Your task to perform on an android device: Open maps Image 0: 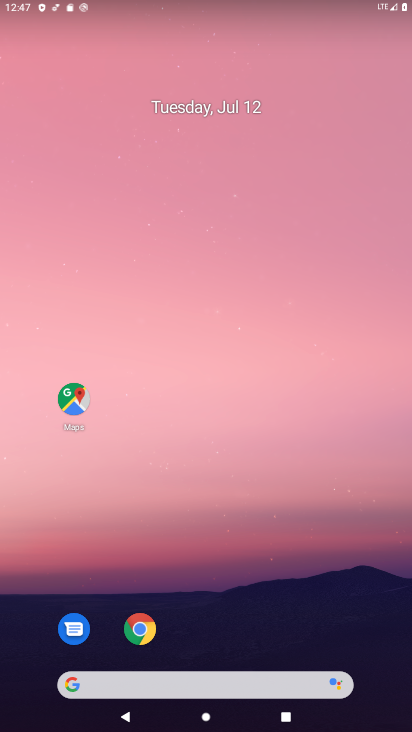
Step 0: click (64, 403)
Your task to perform on an android device: Open maps Image 1: 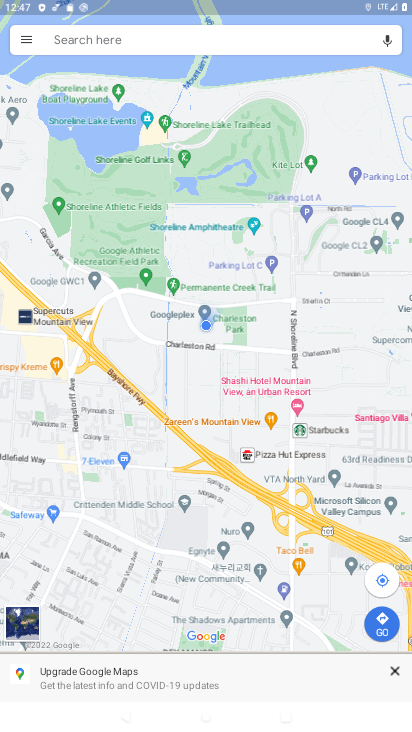
Step 1: task complete